Your task to perform on an android device: Open my contact list Image 0: 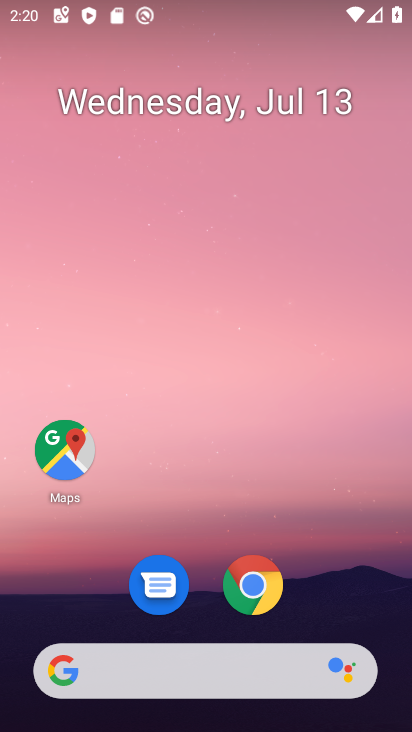
Step 0: drag from (208, 517) to (258, 200)
Your task to perform on an android device: Open my contact list Image 1: 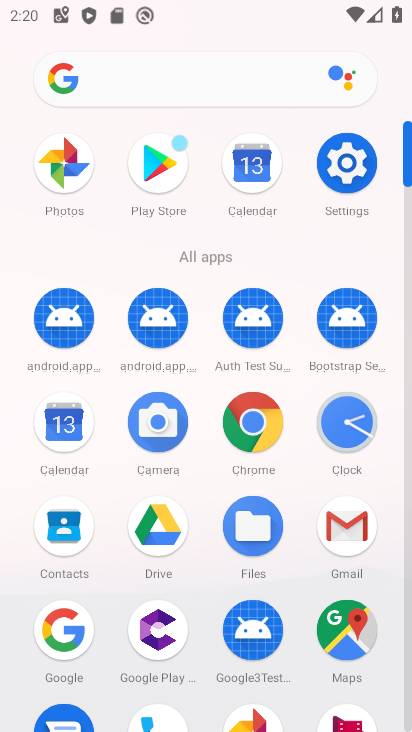
Step 1: click (64, 538)
Your task to perform on an android device: Open my contact list Image 2: 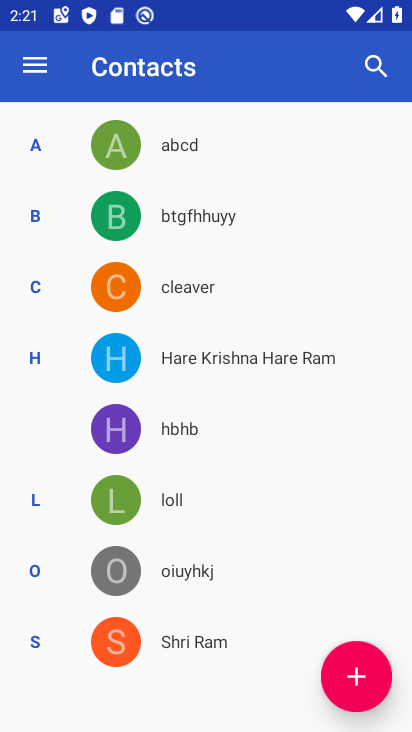
Step 2: task complete